Your task to perform on an android device: Open the map Image 0: 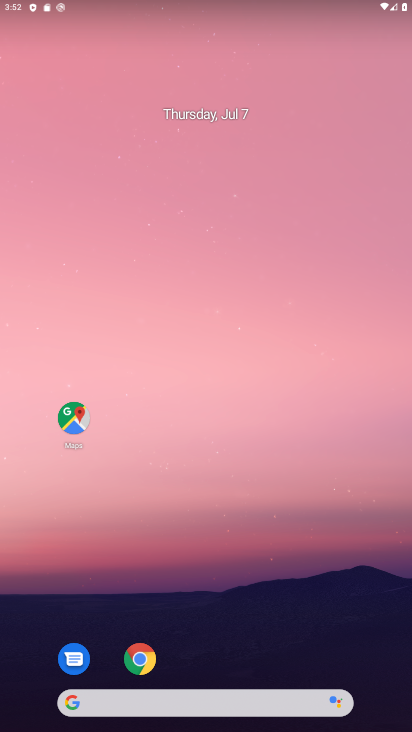
Step 0: click (74, 422)
Your task to perform on an android device: Open the map Image 1: 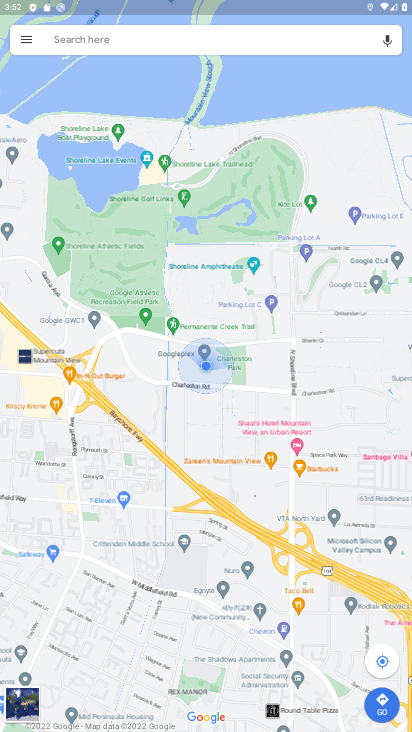
Step 1: task complete